Your task to perform on an android device: stop showing notifications on the lock screen Image 0: 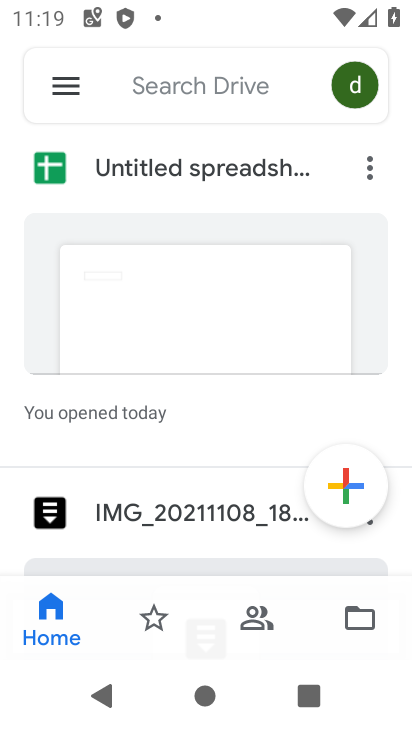
Step 0: press home button
Your task to perform on an android device: stop showing notifications on the lock screen Image 1: 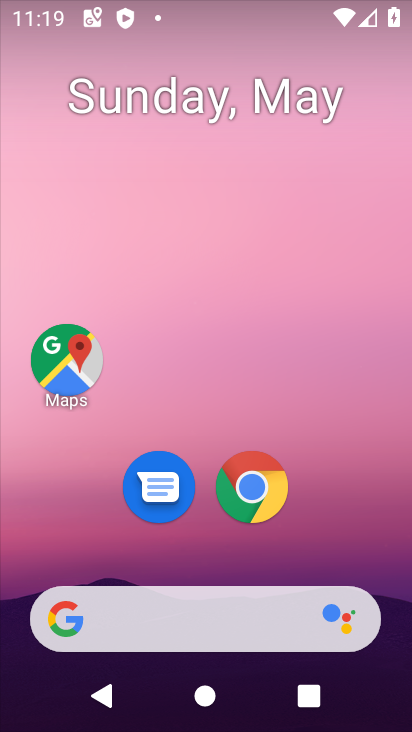
Step 1: drag from (348, 552) to (369, 121)
Your task to perform on an android device: stop showing notifications on the lock screen Image 2: 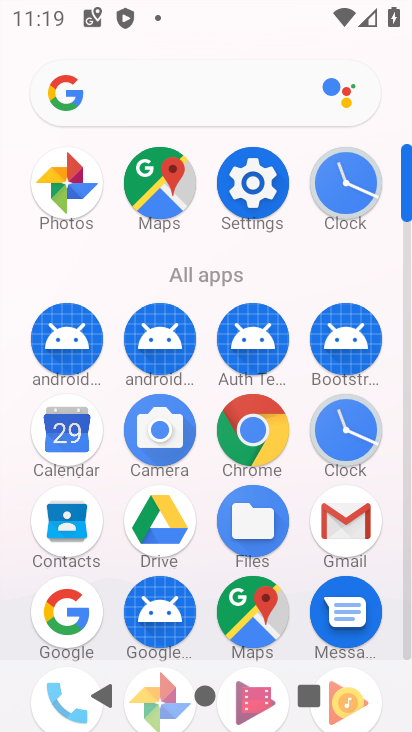
Step 2: click (263, 193)
Your task to perform on an android device: stop showing notifications on the lock screen Image 3: 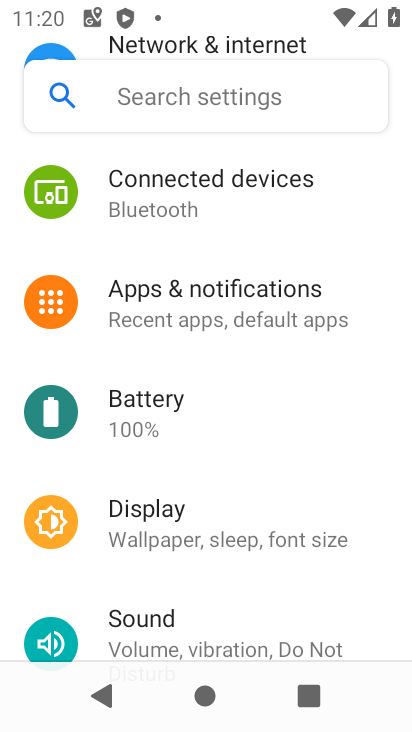
Step 3: drag from (359, 210) to (365, 341)
Your task to perform on an android device: stop showing notifications on the lock screen Image 4: 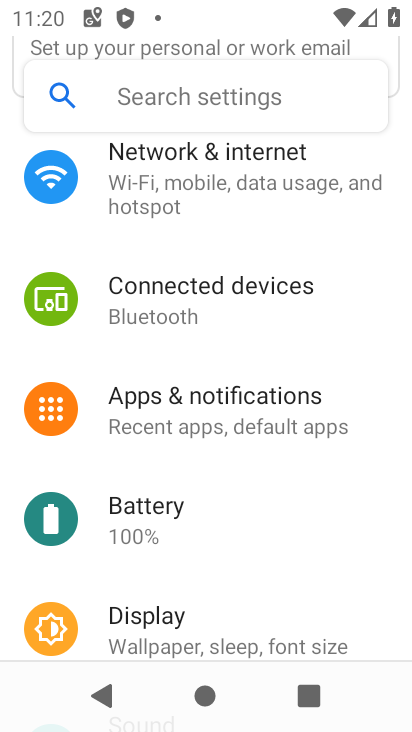
Step 4: drag from (375, 158) to (375, 417)
Your task to perform on an android device: stop showing notifications on the lock screen Image 5: 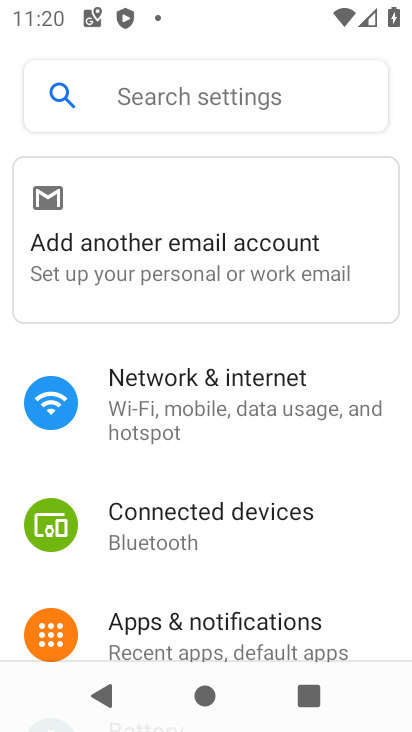
Step 5: drag from (358, 496) to (366, 385)
Your task to perform on an android device: stop showing notifications on the lock screen Image 6: 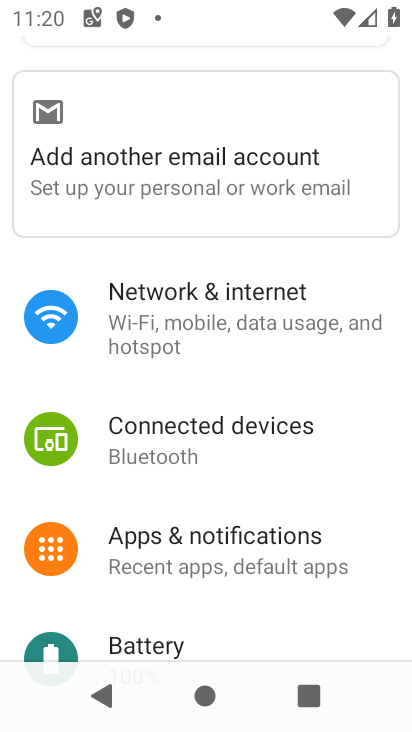
Step 6: drag from (364, 513) to (373, 385)
Your task to perform on an android device: stop showing notifications on the lock screen Image 7: 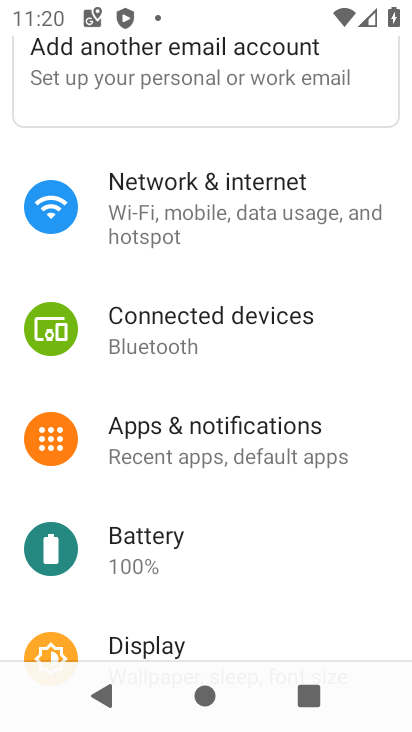
Step 7: drag from (362, 558) to (373, 435)
Your task to perform on an android device: stop showing notifications on the lock screen Image 8: 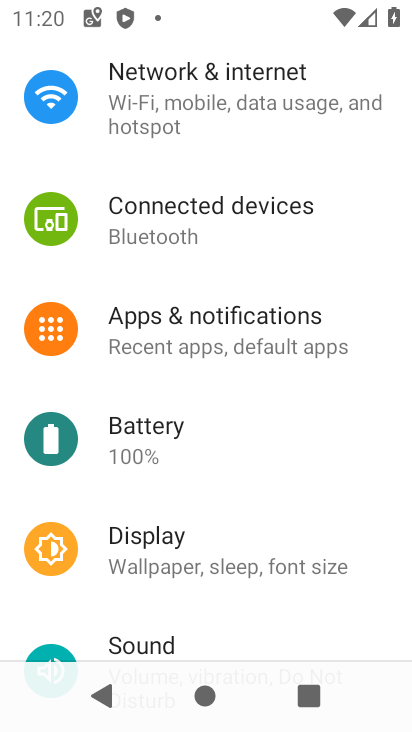
Step 8: click (318, 348)
Your task to perform on an android device: stop showing notifications on the lock screen Image 9: 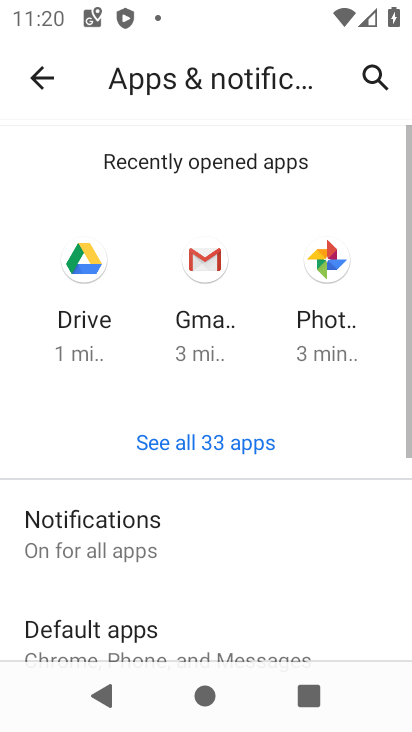
Step 9: drag from (296, 514) to (296, 383)
Your task to perform on an android device: stop showing notifications on the lock screen Image 10: 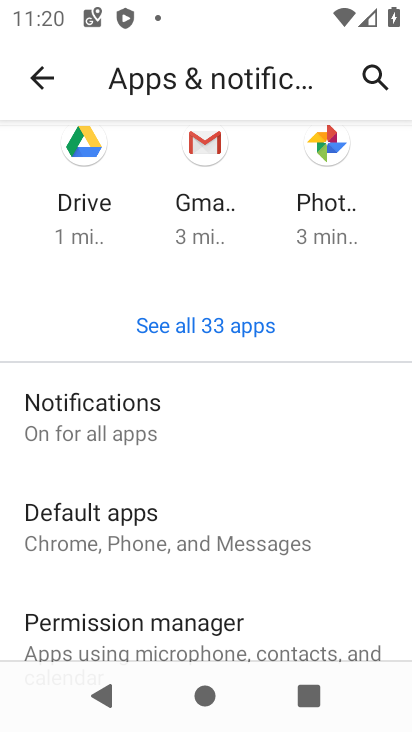
Step 10: drag from (310, 488) to (323, 356)
Your task to perform on an android device: stop showing notifications on the lock screen Image 11: 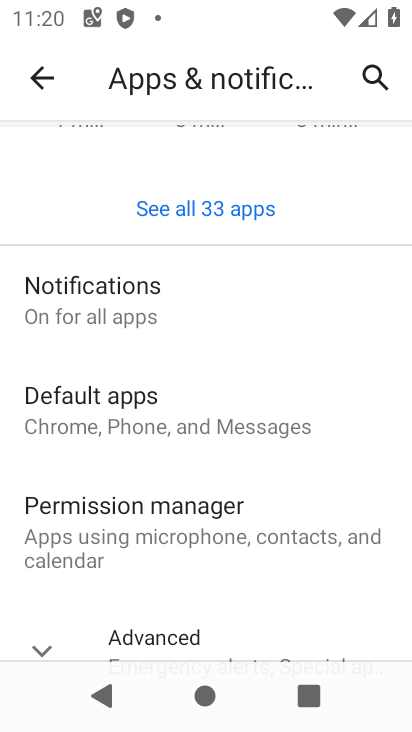
Step 11: click (142, 319)
Your task to perform on an android device: stop showing notifications on the lock screen Image 12: 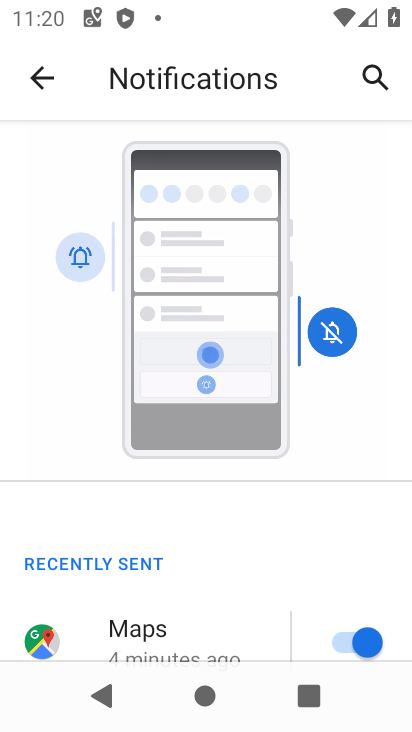
Step 12: drag from (268, 531) to (283, 433)
Your task to perform on an android device: stop showing notifications on the lock screen Image 13: 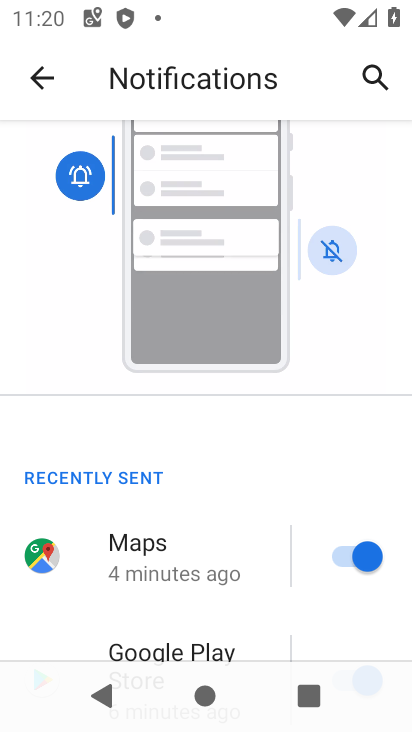
Step 13: drag from (262, 565) to (264, 443)
Your task to perform on an android device: stop showing notifications on the lock screen Image 14: 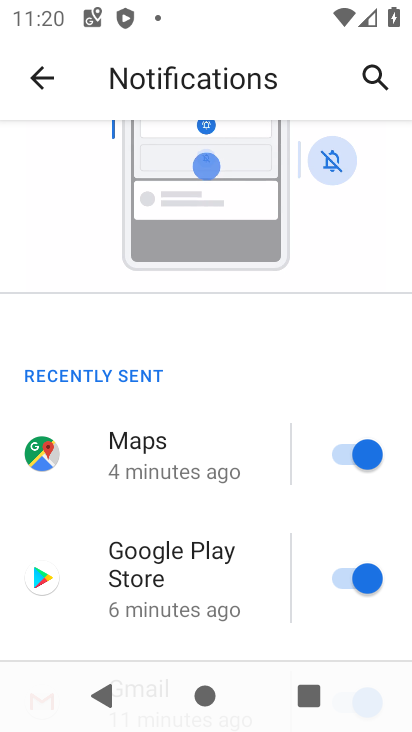
Step 14: drag from (260, 573) to (271, 454)
Your task to perform on an android device: stop showing notifications on the lock screen Image 15: 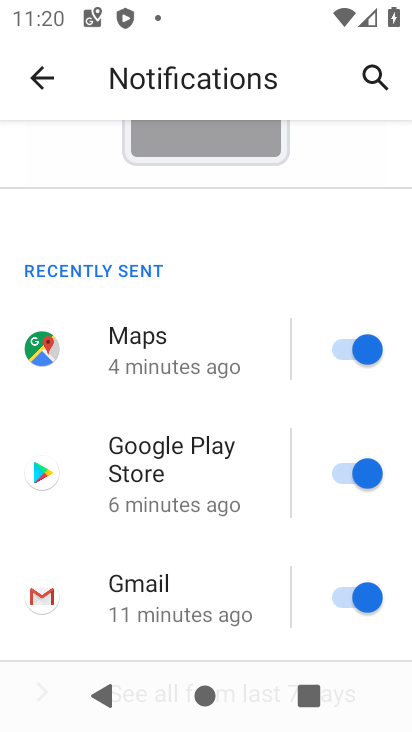
Step 15: drag from (265, 588) to (270, 470)
Your task to perform on an android device: stop showing notifications on the lock screen Image 16: 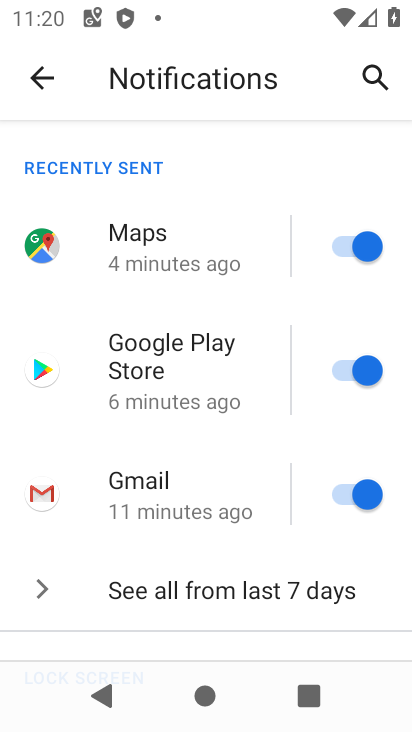
Step 16: drag from (265, 581) to (266, 444)
Your task to perform on an android device: stop showing notifications on the lock screen Image 17: 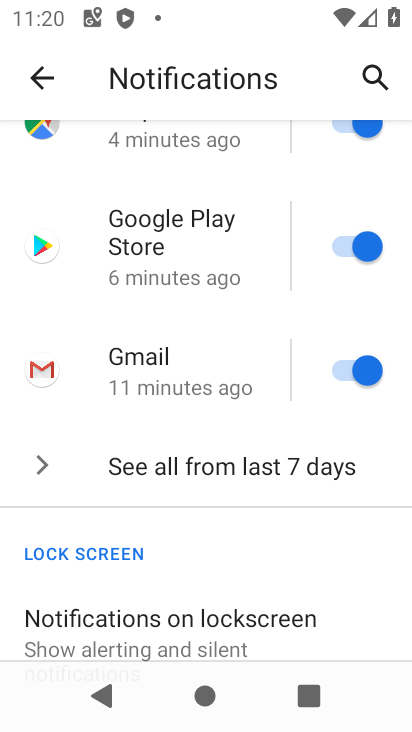
Step 17: drag from (250, 565) to (252, 382)
Your task to perform on an android device: stop showing notifications on the lock screen Image 18: 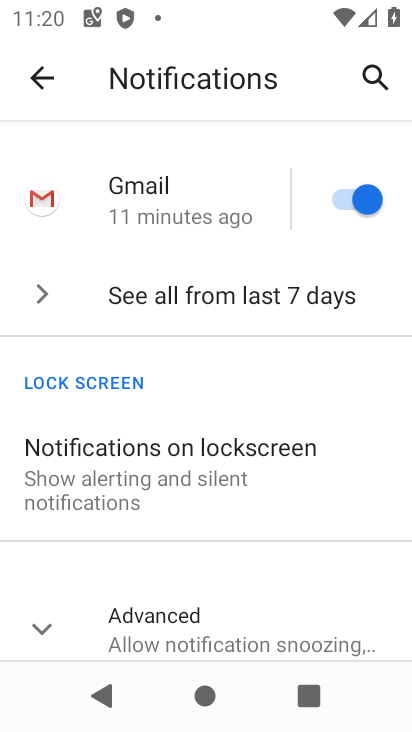
Step 18: drag from (274, 551) to (273, 426)
Your task to perform on an android device: stop showing notifications on the lock screen Image 19: 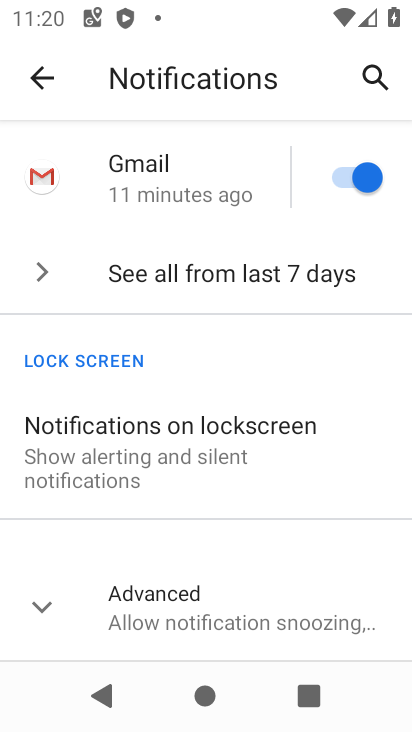
Step 19: click (279, 427)
Your task to perform on an android device: stop showing notifications on the lock screen Image 20: 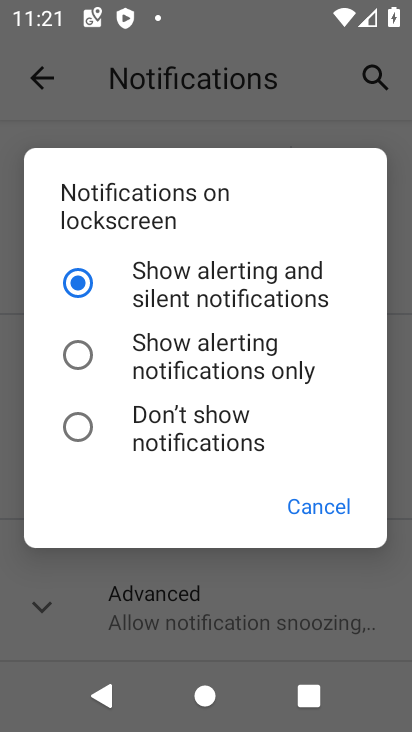
Step 20: click (162, 450)
Your task to perform on an android device: stop showing notifications on the lock screen Image 21: 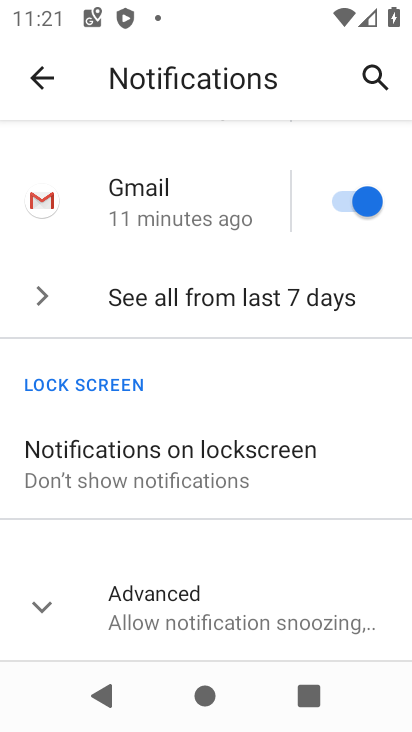
Step 21: task complete